Your task to perform on an android device: Turn off the flashlight Image 0: 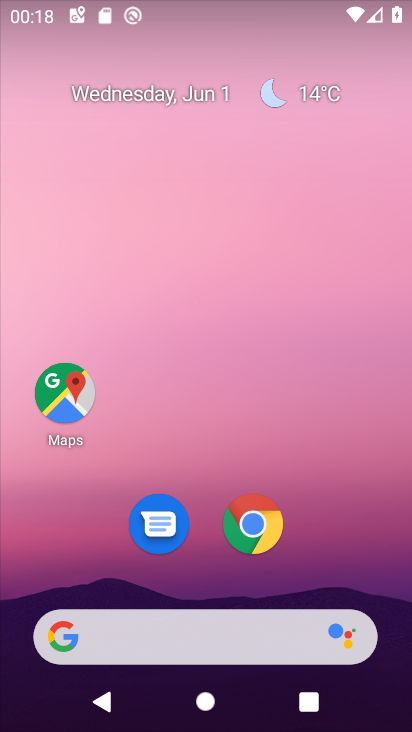
Step 0: drag from (274, 447) to (284, 9)
Your task to perform on an android device: Turn off the flashlight Image 1: 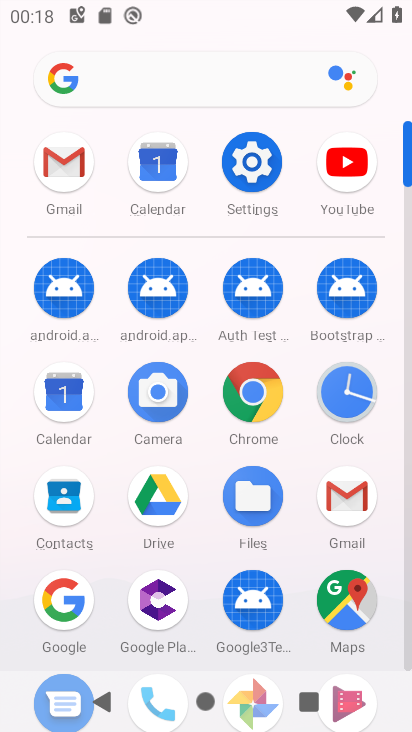
Step 1: click (265, 165)
Your task to perform on an android device: Turn off the flashlight Image 2: 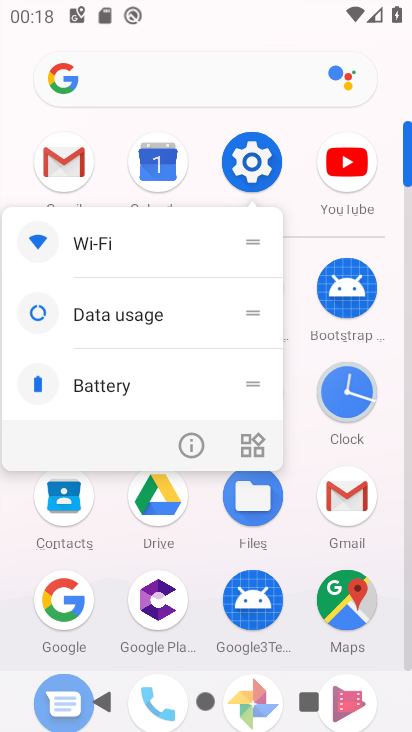
Step 2: click (265, 163)
Your task to perform on an android device: Turn off the flashlight Image 3: 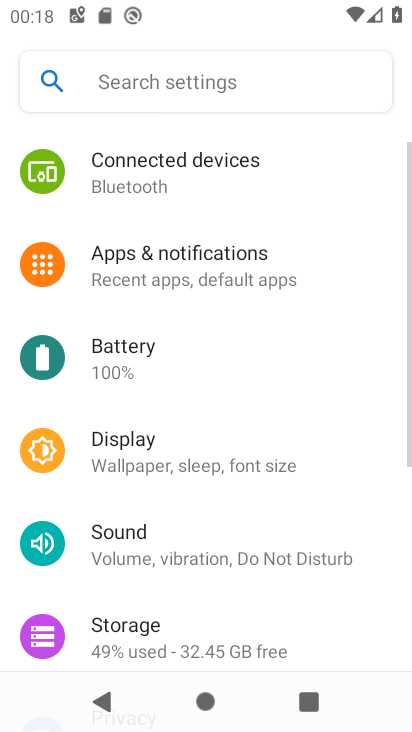
Step 3: drag from (263, 199) to (241, 547)
Your task to perform on an android device: Turn off the flashlight Image 4: 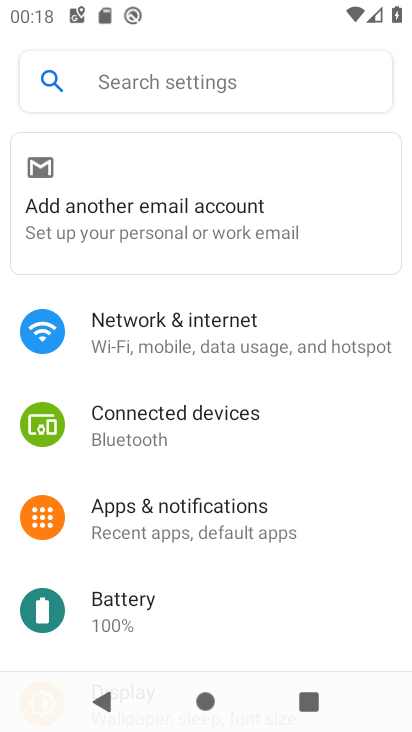
Step 4: click (276, 67)
Your task to perform on an android device: Turn off the flashlight Image 5: 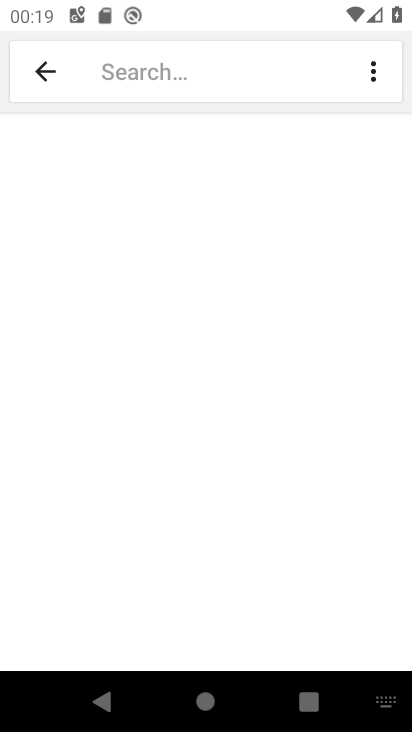
Step 5: type "Flashlight"
Your task to perform on an android device: Turn off the flashlight Image 6: 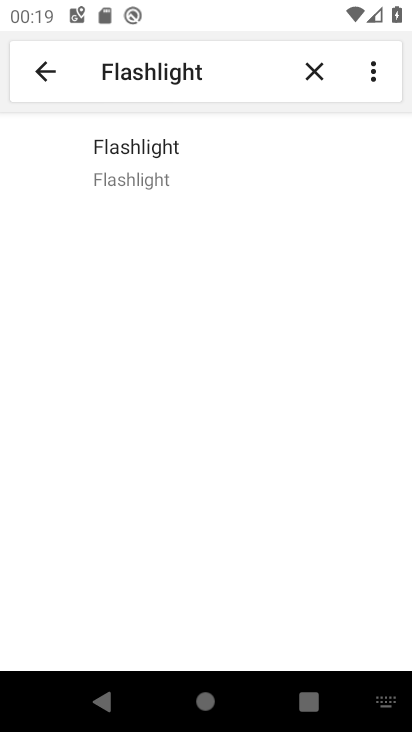
Step 6: click (168, 164)
Your task to perform on an android device: Turn off the flashlight Image 7: 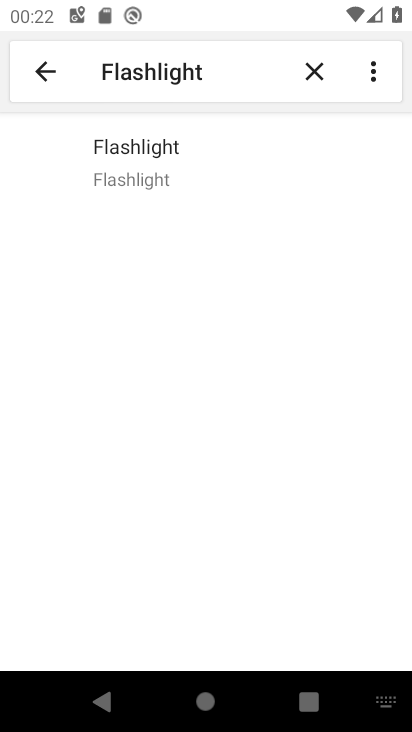
Step 7: task complete